Your task to perform on an android device: Open maps Image 0: 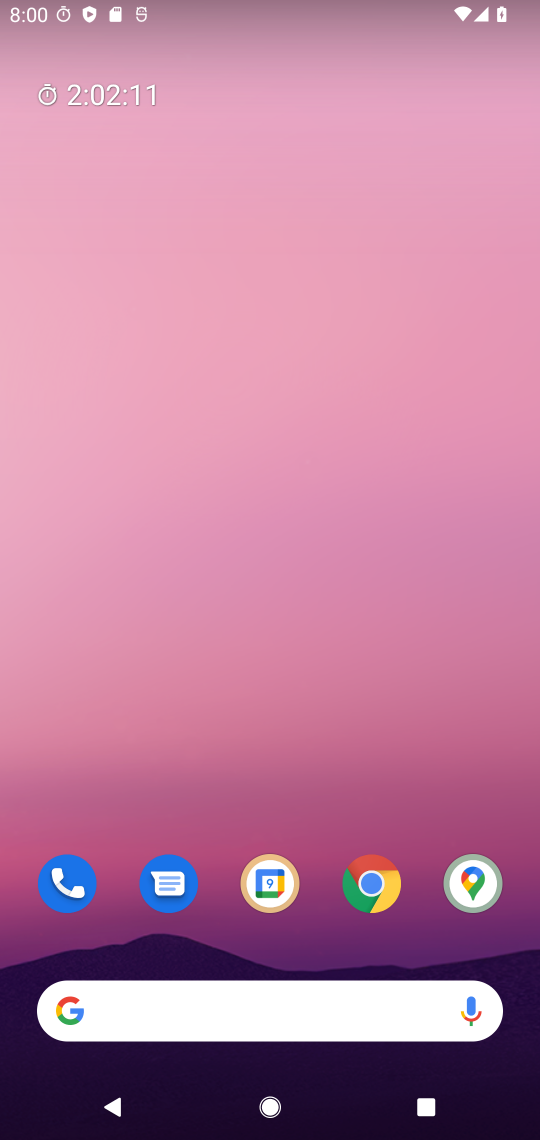
Step 0: click (485, 887)
Your task to perform on an android device: Open maps Image 1: 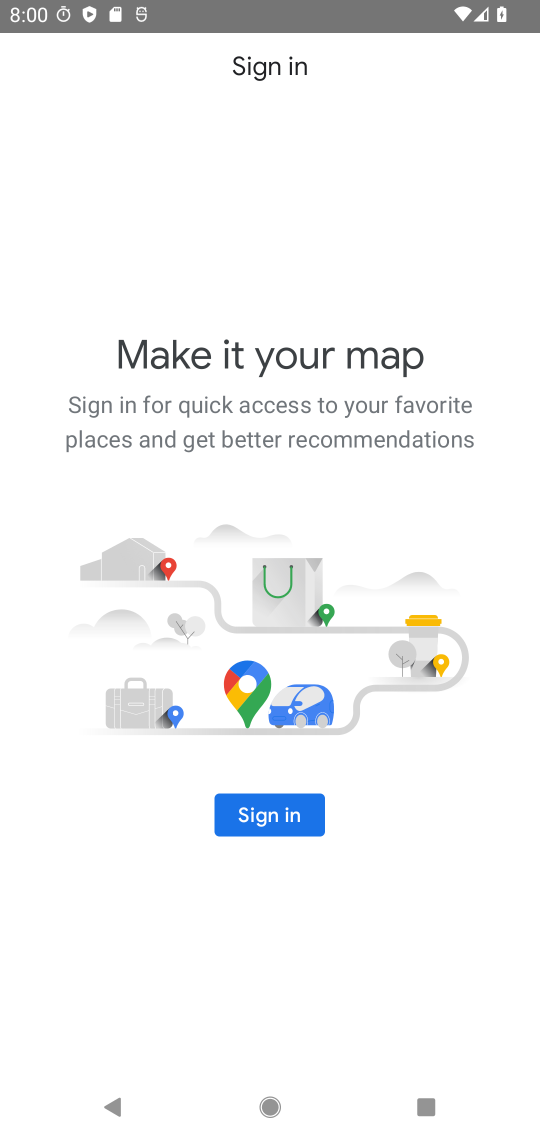
Step 1: task complete